Your task to perform on an android device: When is my next appointment? Image 0: 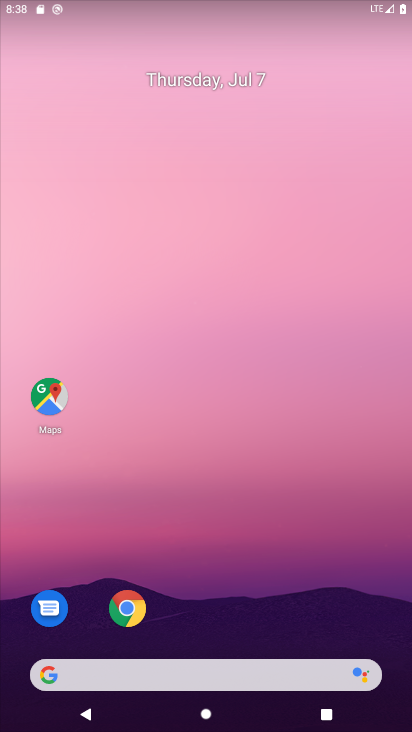
Step 0: drag from (358, 594) to (373, 64)
Your task to perform on an android device: When is my next appointment? Image 1: 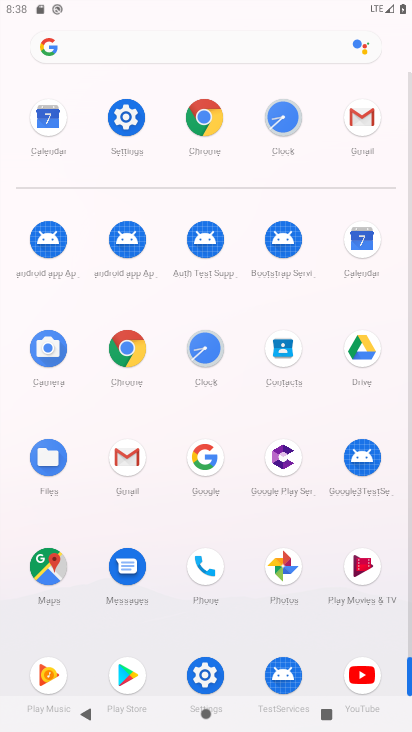
Step 1: click (377, 235)
Your task to perform on an android device: When is my next appointment? Image 2: 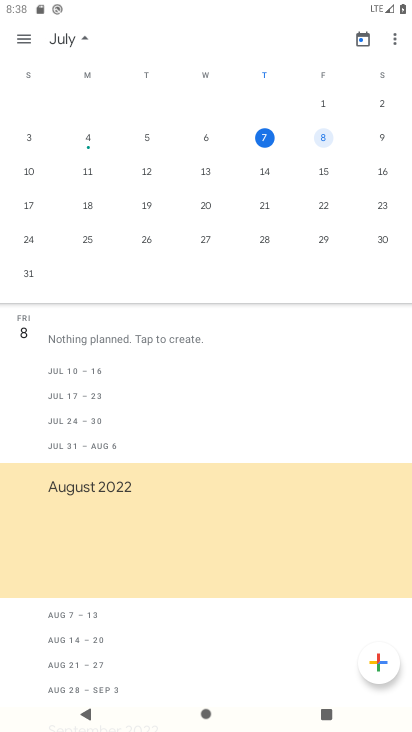
Step 2: task complete